Your task to perform on an android device: Go to display settings Image 0: 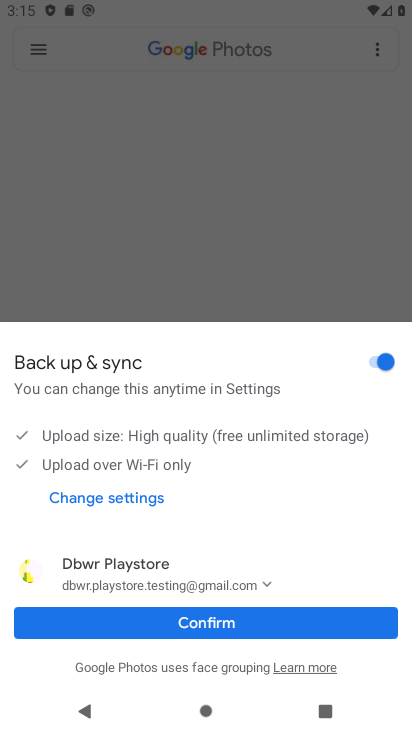
Step 0: press home button
Your task to perform on an android device: Go to display settings Image 1: 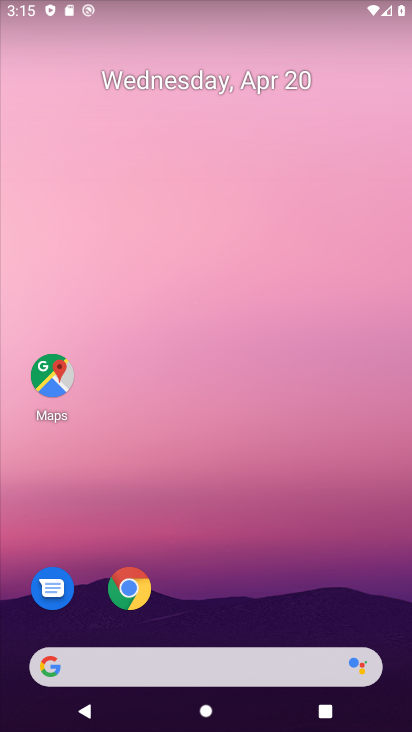
Step 1: drag from (302, 614) to (241, 9)
Your task to perform on an android device: Go to display settings Image 2: 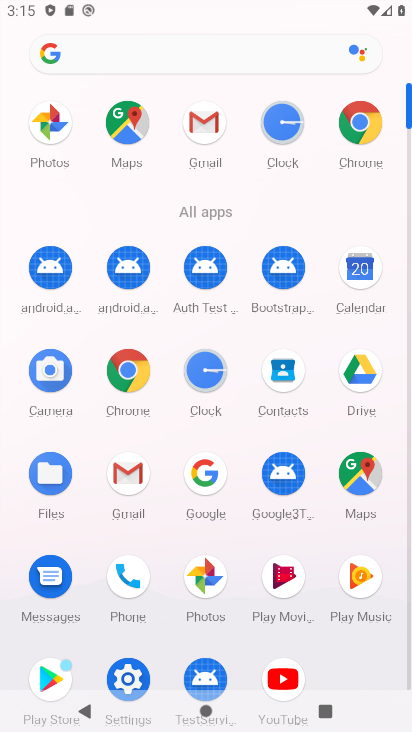
Step 2: click (121, 667)
Your task to perform on an android device: Go to display settings Image 3: 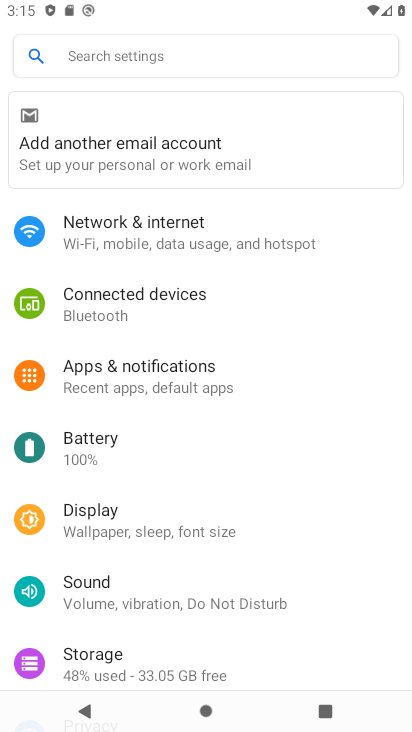
Step 3: click (128, 509)
Your task to perform on an android device: Go to display settings Image 4: 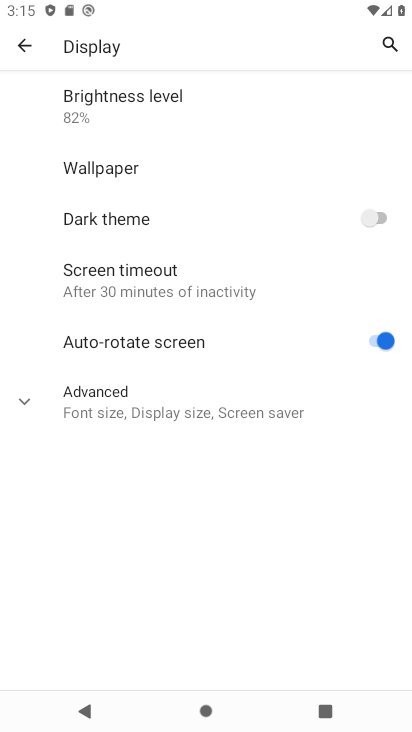
Step 4: task complete